Your task to perform on an android device: toggle location history Image 0: 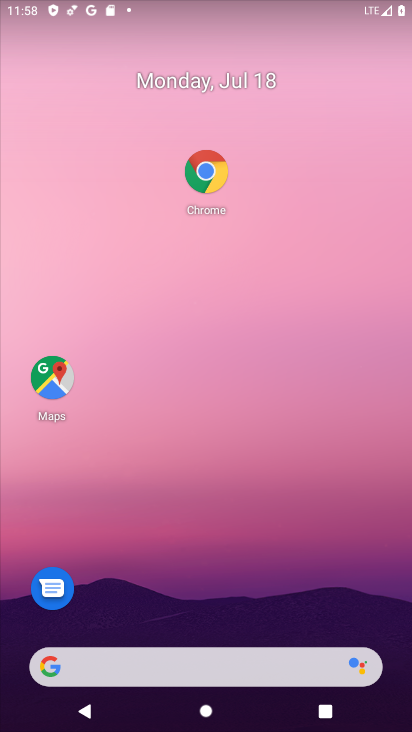
Step 0: drag from (145, 641) to (157, 209)
Your task to perform on an android device: toggle location history Image 1: 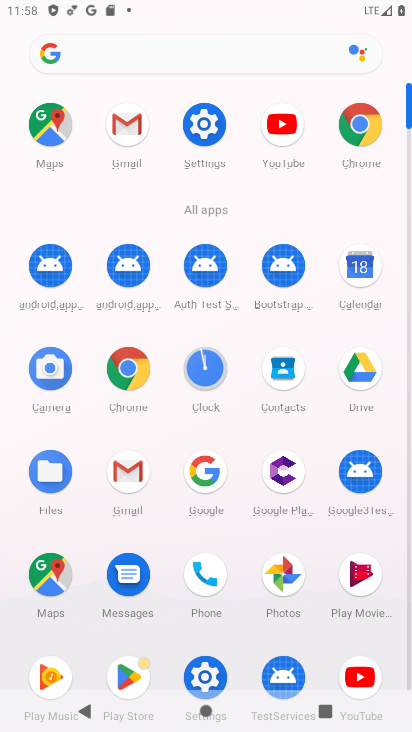
Step 1: click (213, 133)
Your task to perform on an android device: toggle location history Image 2: 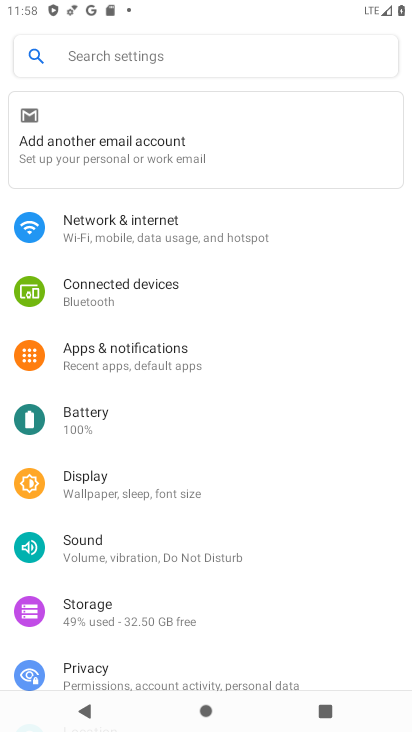
Step 2: drag from (82, 620) to (323, 214)
Your task to perform on an android device: toggle location history Image 3: 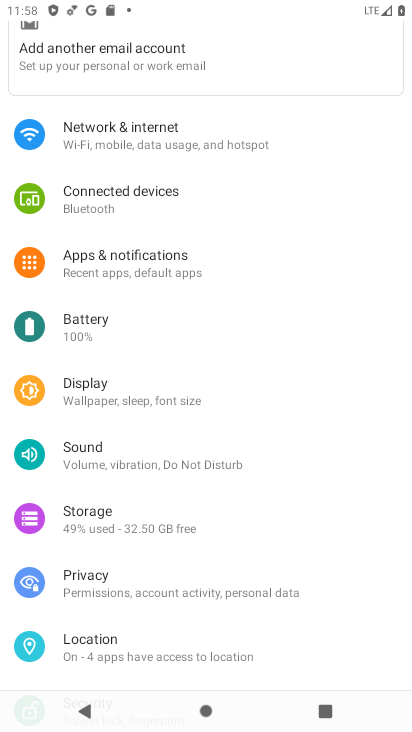
Step 3: click (100, 656)
Your task to perform on an android device: toggle location history Image 4: 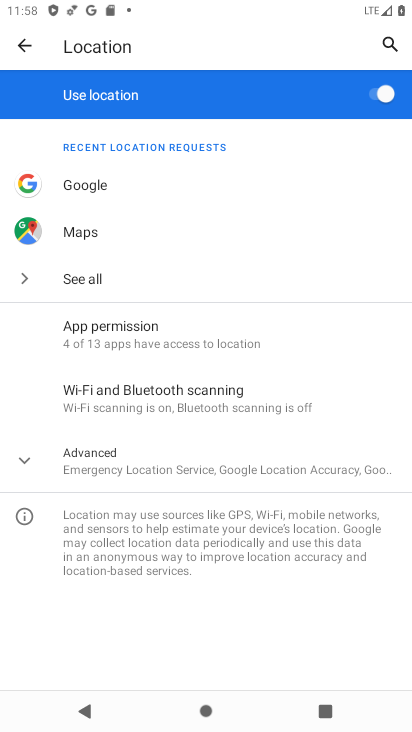
Step 4: click (224, 476)
Your task to perform on an android device: toggle location history Image 5: 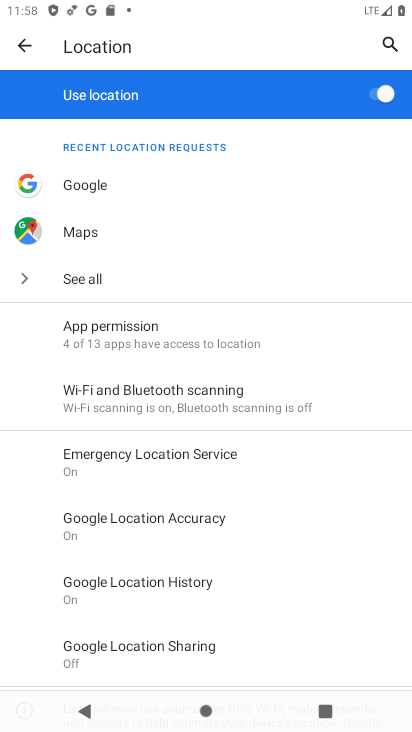
Step 5: click (162, 587)
Your task to perform on an android device: toggle location history Image 6: 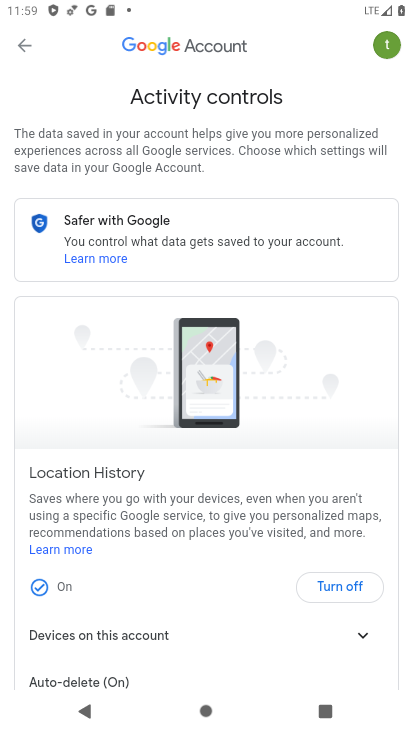
Step 6: click (313, 590)
Your task to perform on an android device: toggle location history Image 7: 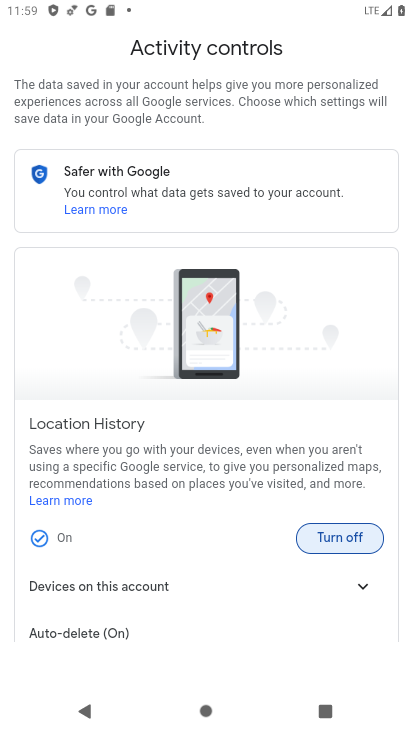
Step 7: click (313, 590)
Your task to perform on an android device: toggle location history Image 8: 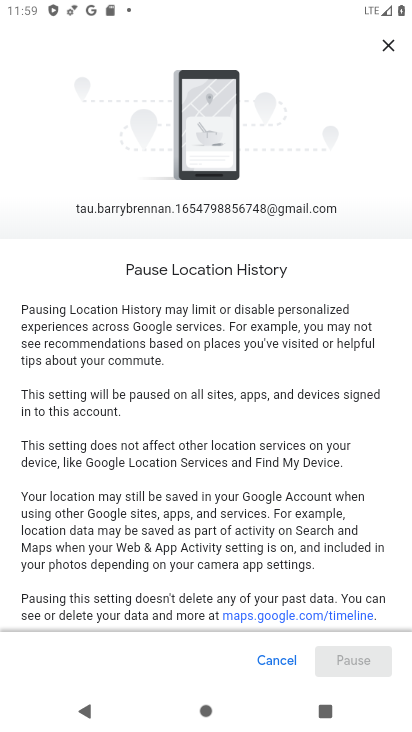
Step 8: drag from (110, 546) to (137, 131)
Your task to perform on an android device: toggle location history Image 9: 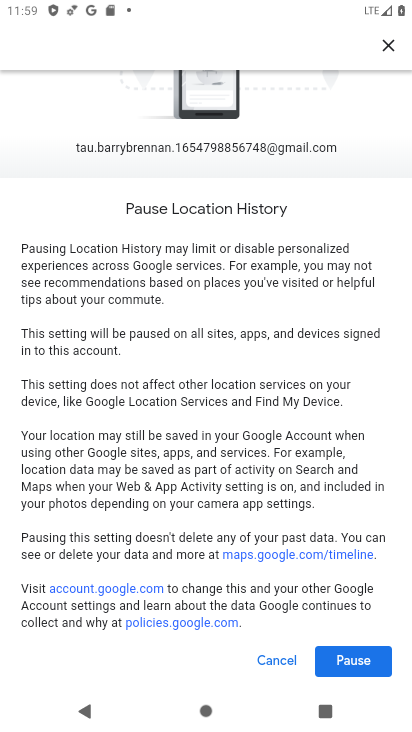
Step 9: drag from (169, 591) to (168, 371)
Your task to perform on an android device: toggle location history Image 10: 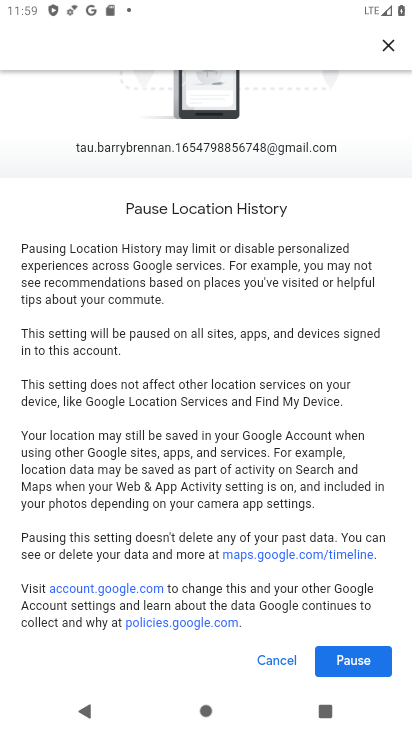
Step 10: click (386, 668)
Your task to perform on an android device: toggle location history Image 11: 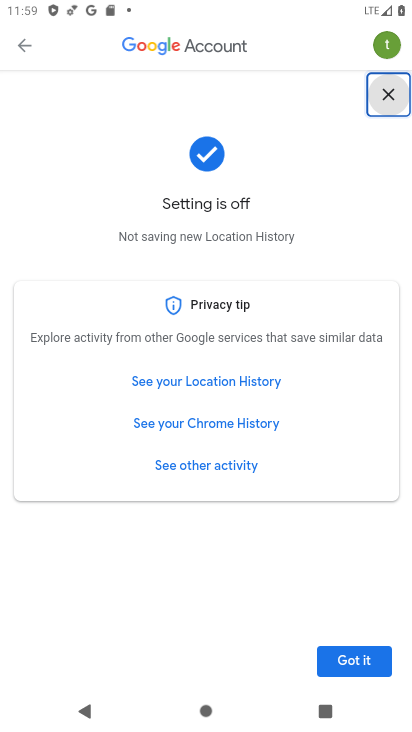
Step 11: click (369, 669)
Your task to perform on an android device: toggle location history Image 12: 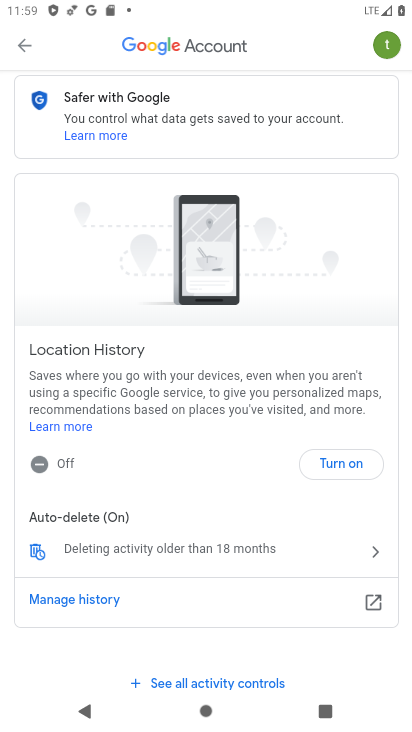
Step 12: task complete